Your task to perform on an android device: open chrome and create a bookmark for the current page Image 0: 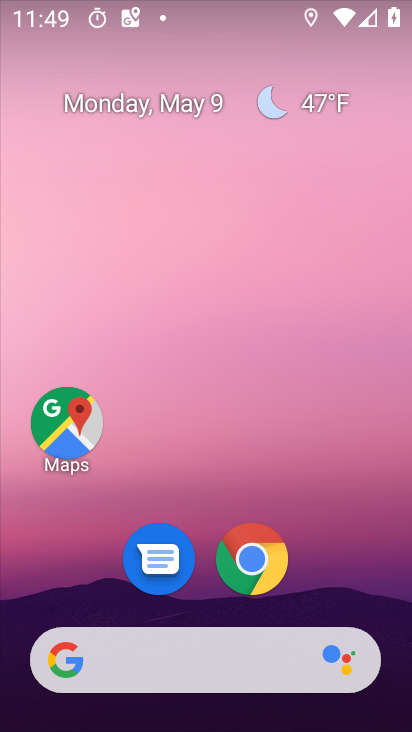
Step 0: click (241, 558)
Your task to perform on an android device: open chrome and create a bookmark for the current page Image 1: 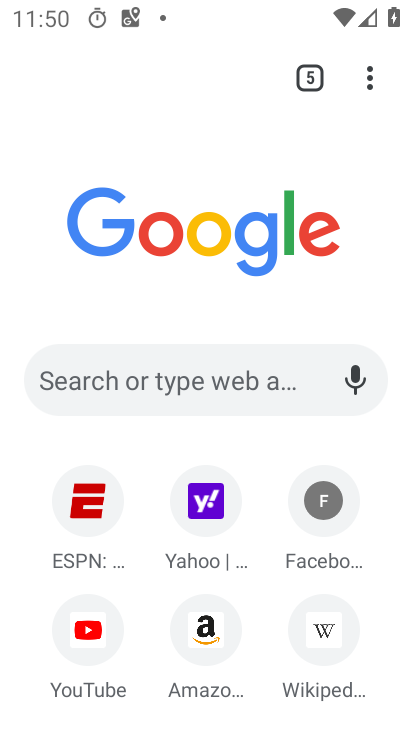
Step 1: task complete